Your task to perform on an android device: Search for asus rog on amazon.com, select the first entry, add it to the cart, then select checkout. Image 0: 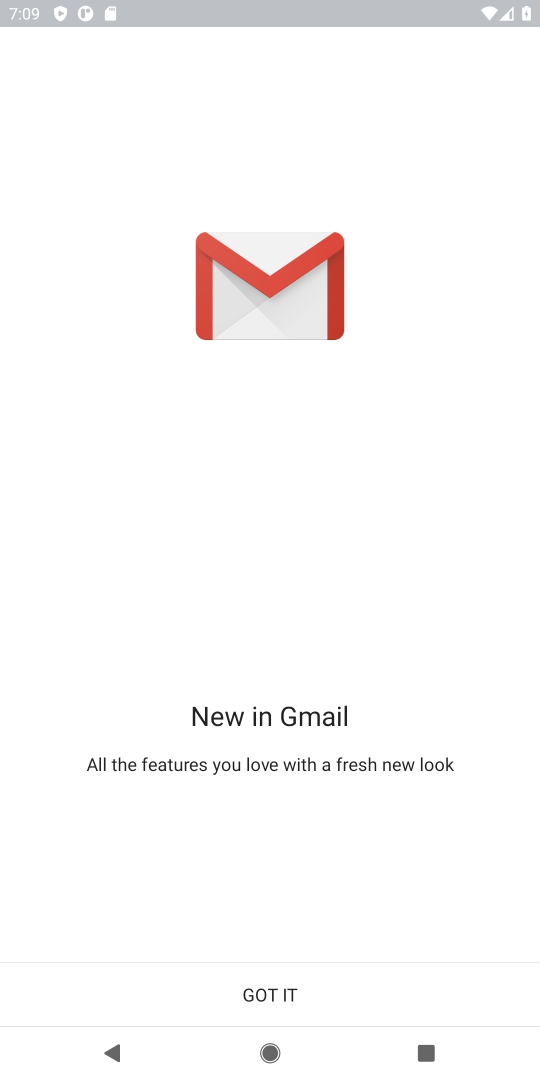
Step 0: press home button
Your task to perform on an android device: Search for asus rog on amazon.com, select the first entry, add it to the cart, then select checkout. Image 1: 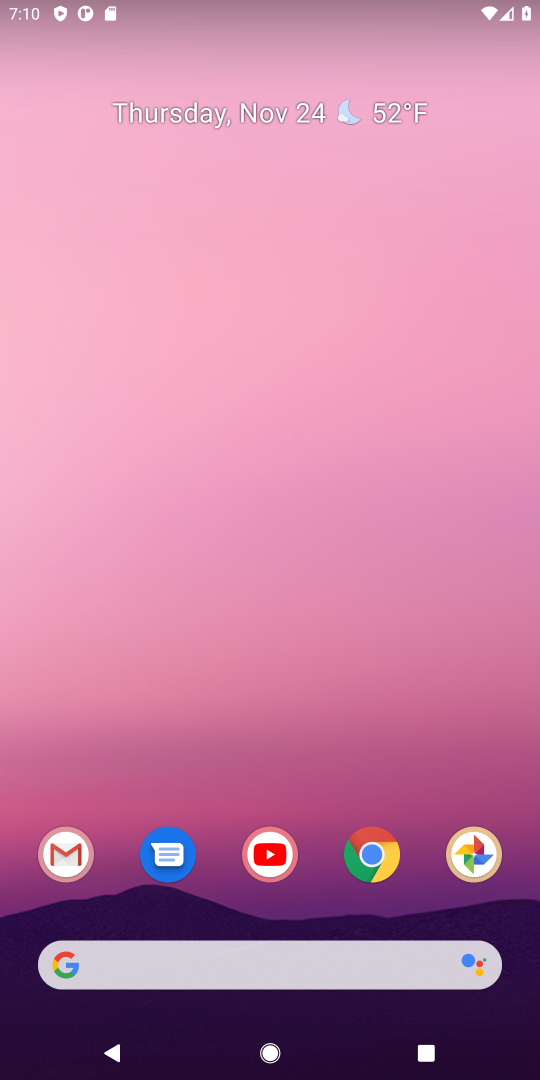
Step 1: click (366, 860)
Your task to perform on an android device: Search for asus rog on amazon.com, select the first entry, add it to the cart, then select checkout. Image 2: 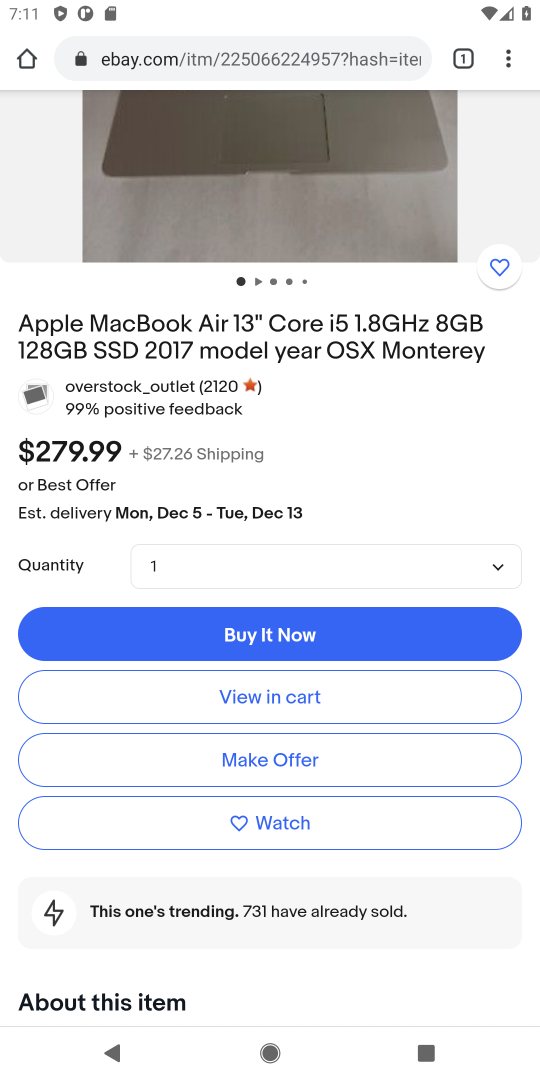
Step 2: click (221, 68)
Your task to perform on an android device: Search for asus rog on amazon.com, select the first entry, add it to the cart, then select checkout. Image 3: 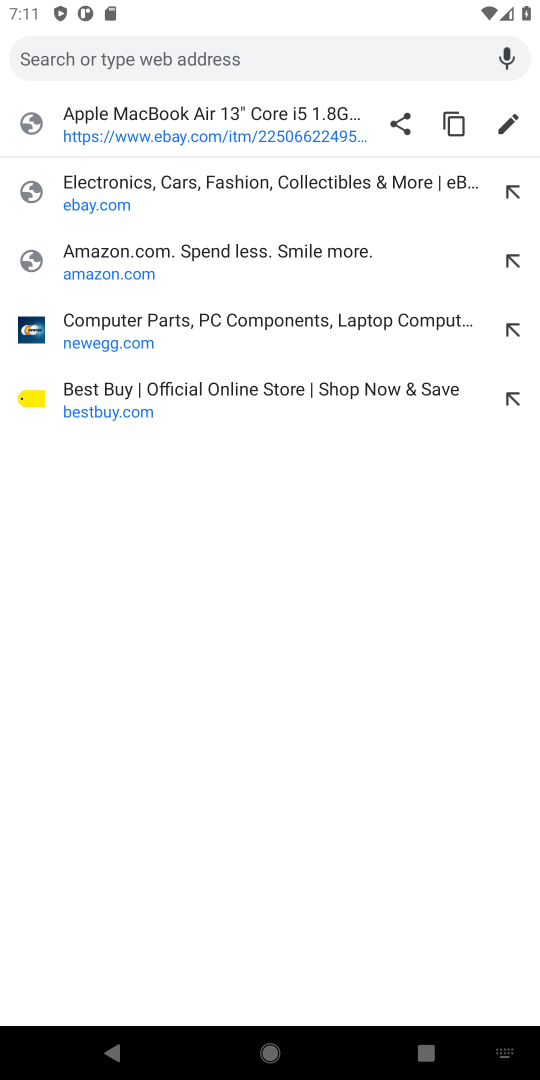
Step 3: click (98, 257)
Your task to perform on an android device: Search for asus rog on amazon.com, select the first entry, add it to the cart, then select checkout. Image 4: 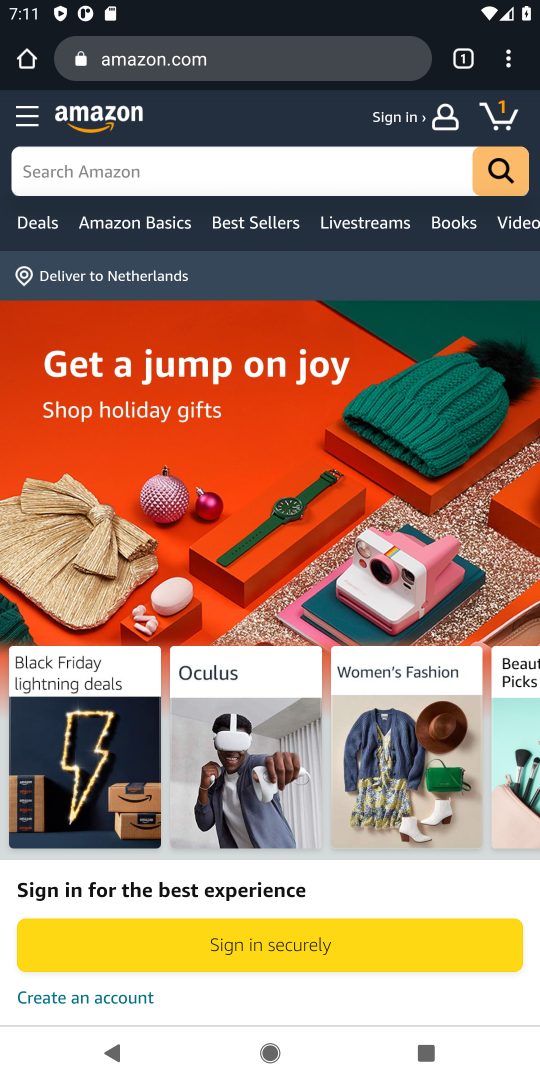
Step 4: click (102, 167)
Your task to perform on an android device: Search for asus rog on amazon.com, select the first entry, add it to the cart, then select checkout. Image 5: 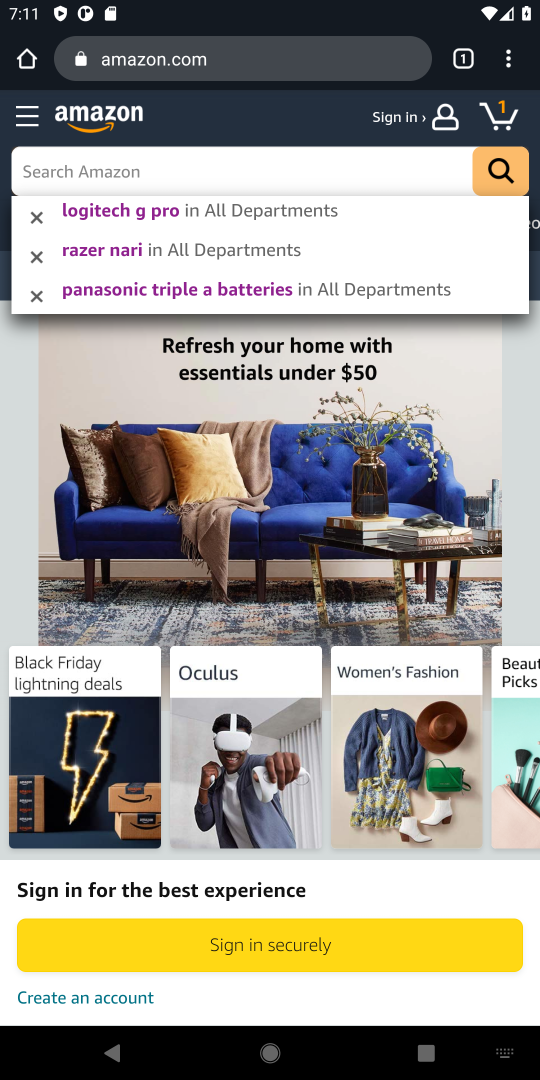
Step 5: type "asus rog"
Your task to perform on an android device: Search for asus rog on amazon.com, select the first entry, add it to the cart, then select checkout. Image 6: 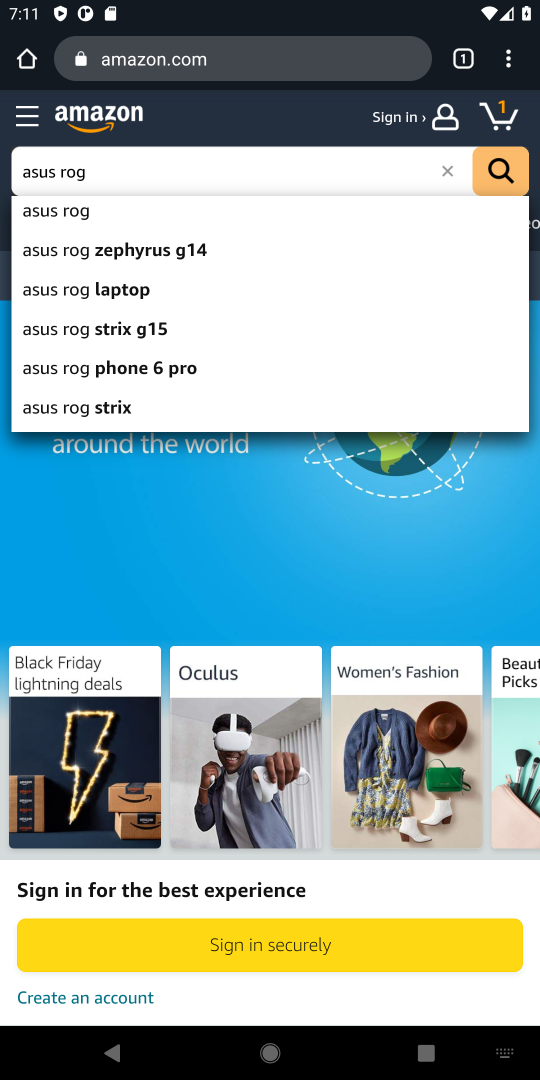
Step 6: click (63, 221)
Your task to perform on an android device: Search for asus rog on amazon.com, select the first entry, add it to the cart, then select checkout. Image 7: 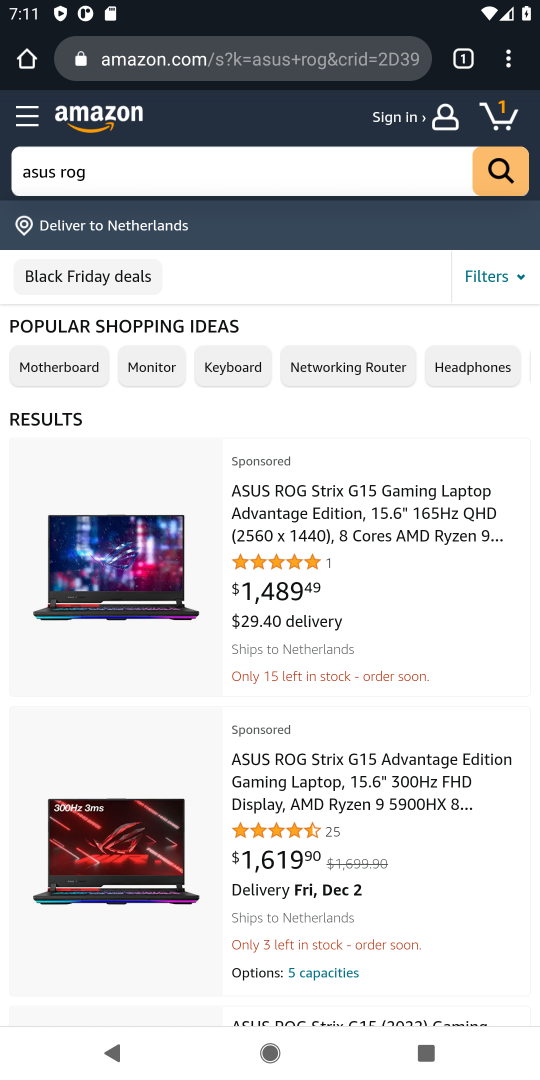
Step 7: click (134, 572)
Your task to perform on an android device: Search for asus rog on amazon.com, select the first entry, add it to the cart, then select checkout. Image 8: 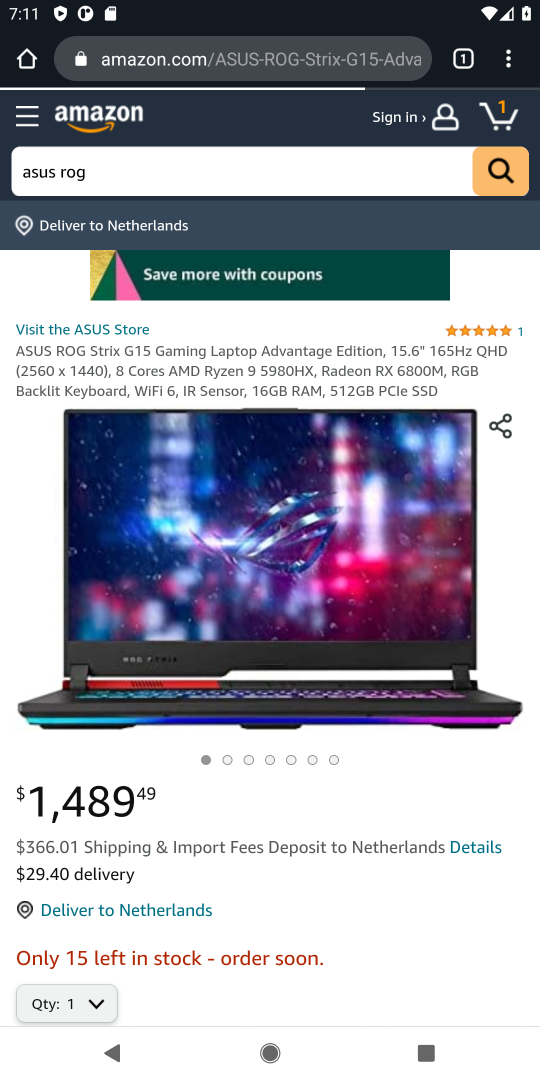
Step 8: drag from (243, 774) to (224, 437)
Your task to perform on an android device: Search for asus rog on amazon.com, select the first entry, add it to the cart, then select checkout. Image 9: 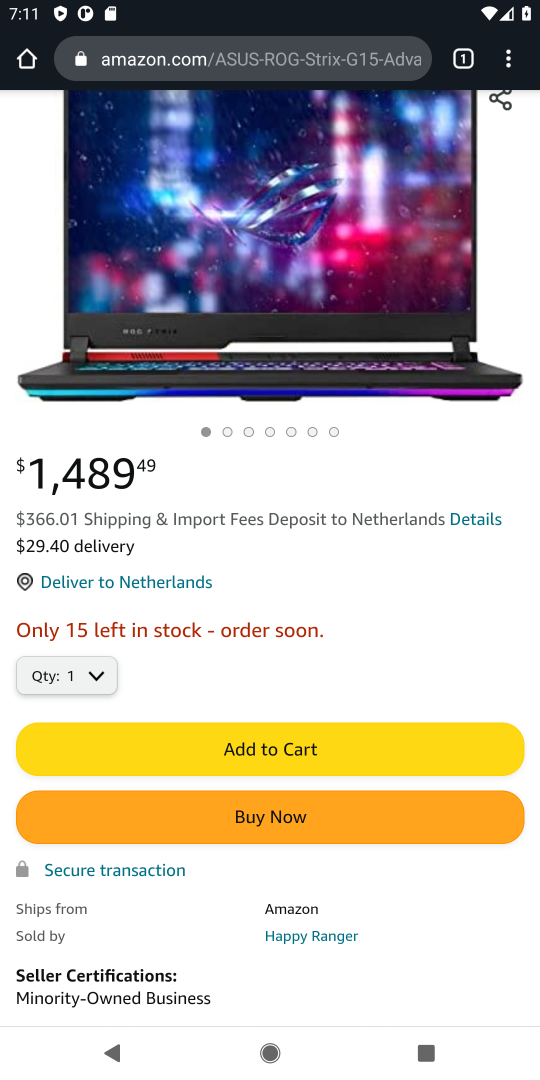
Step 9: click (241, 751)
Your task to perform on an android device: Search for asus rog on amazon.com, select the first entry, add it to the cart, then select checkout. Image 10: 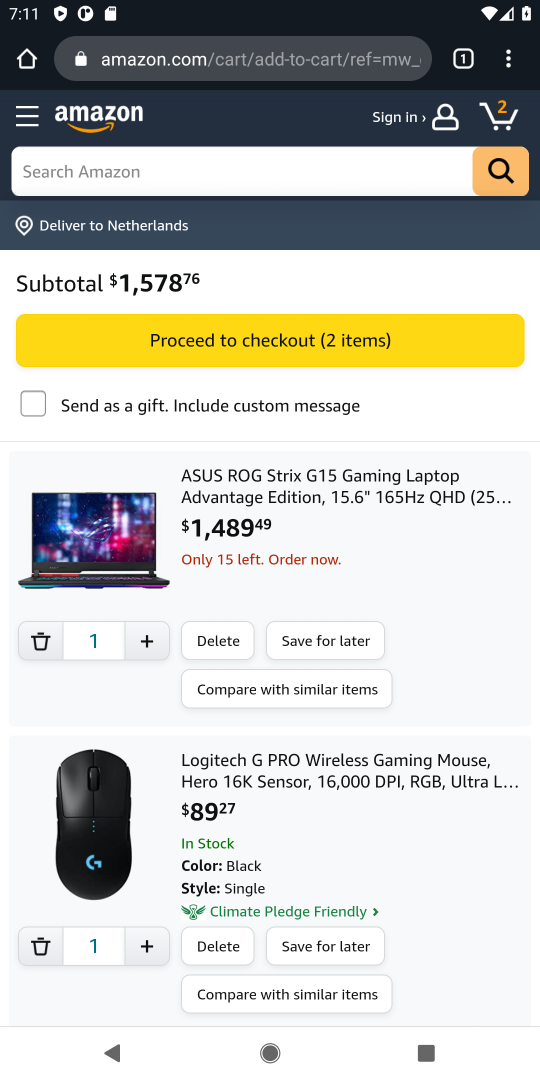
Step 10: click (263, 343)
Your task to perform on an android device: Search for asus rog on amazon.com, select the first entry, add it to the cart, then select checkout. Image 11: 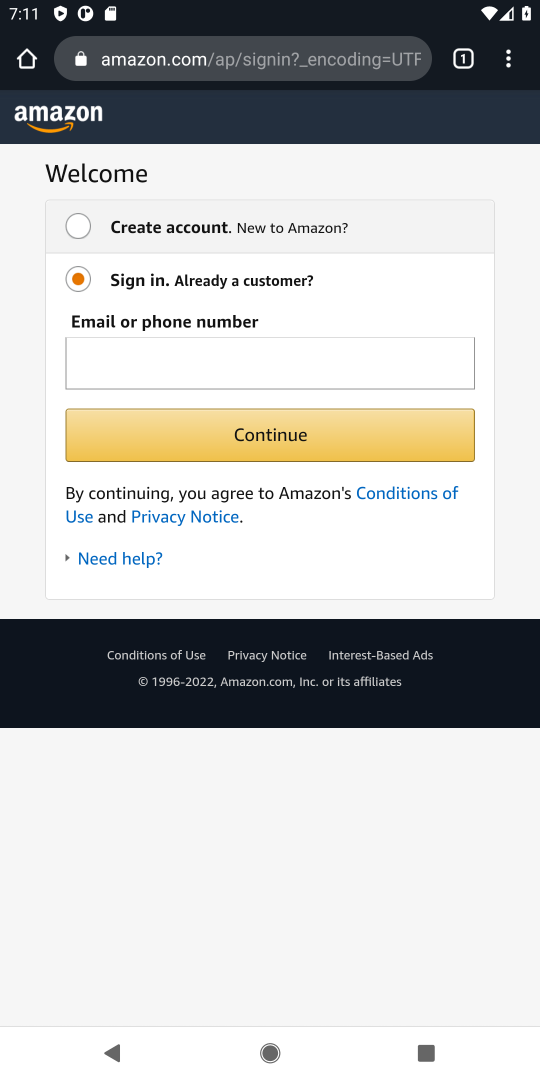
Step 11: task complete